Your task to perform on an android device: Open Yahoo.com Image 0: 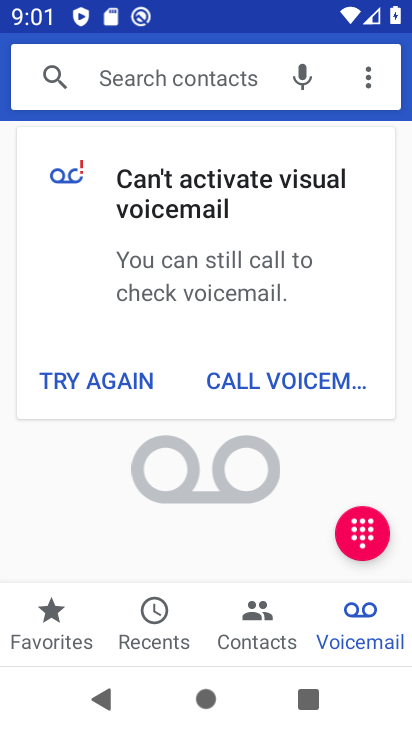
Step 0: press home button
Your task to perform on an android device: Open Yahoo.com Image 1: 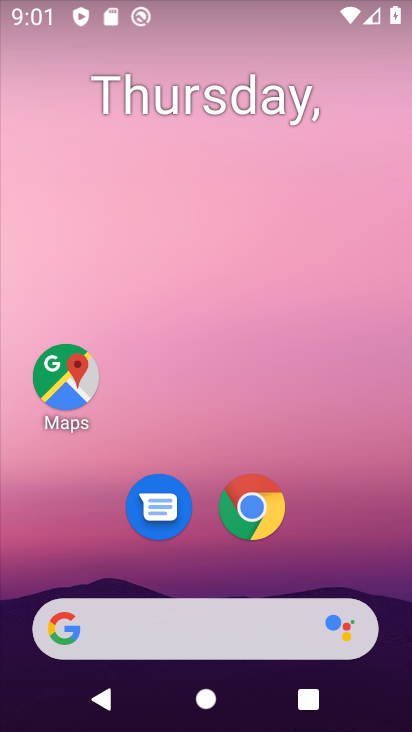
Step 1: click (261, 508)
Your task to perform on an android device: Open Yahoo.com Image 2: 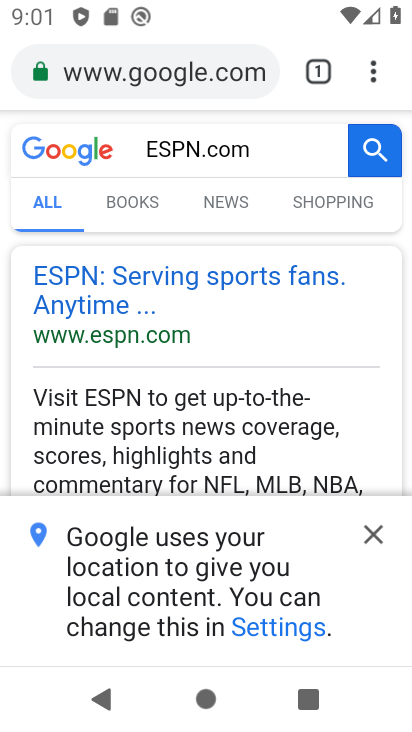
Step 2: click (363, 530)
Your task to perform on an android device: Open Yahoo.com Image 3: 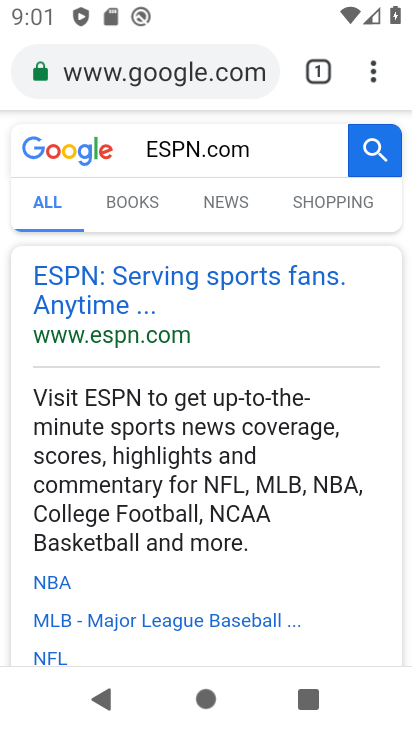
Step 3: click (188, 85)
Your task to perform on an android device: Open Yahoo.com Image 4: 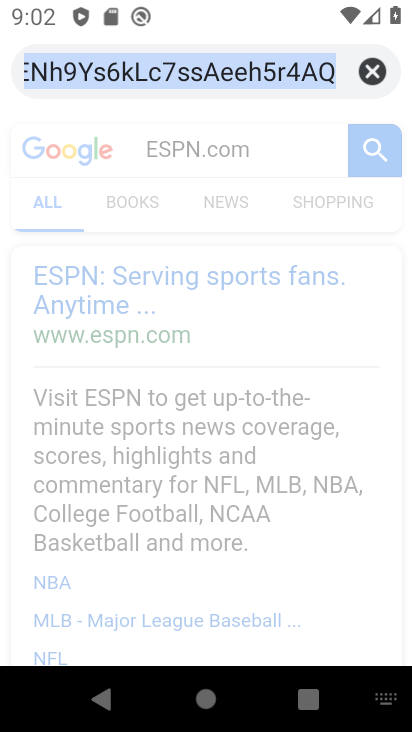
Step 4: type "Yahoo.com"
Your task to perform on an android device: Open Yahoo.com Image 5: 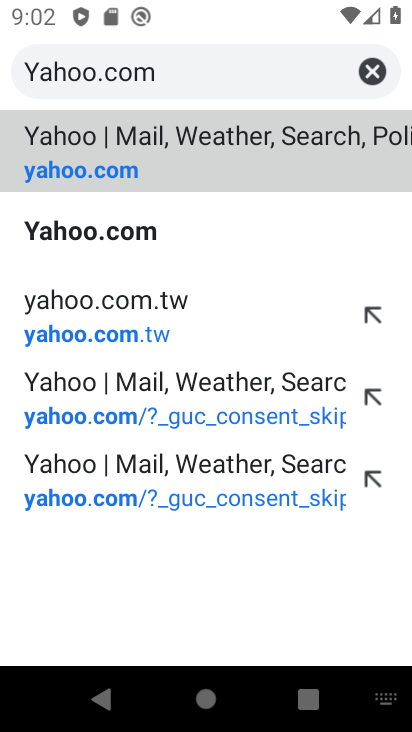
Step 5: click (170, 250)
Your task to perform on an android device: Open Yahoo.com Image 6: 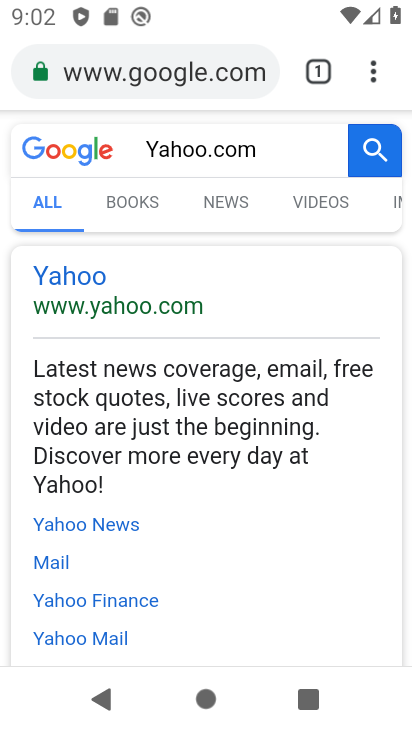
Step 6: task complete